Your task to perform on an android device: change timer sound Image 0: 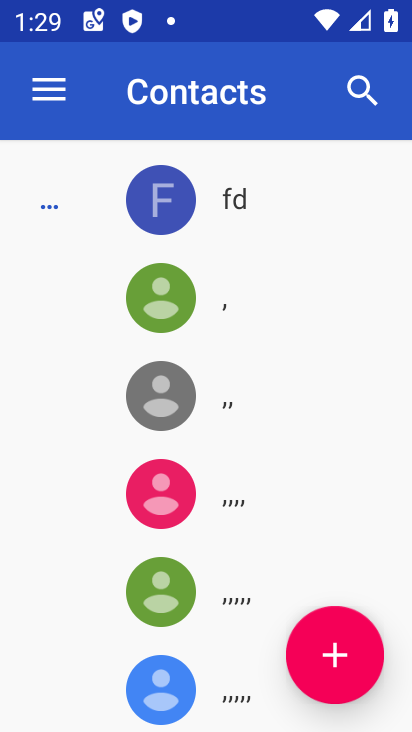
Step 0: press home button
Your task to perform on an android device: change timer sound Image 1: 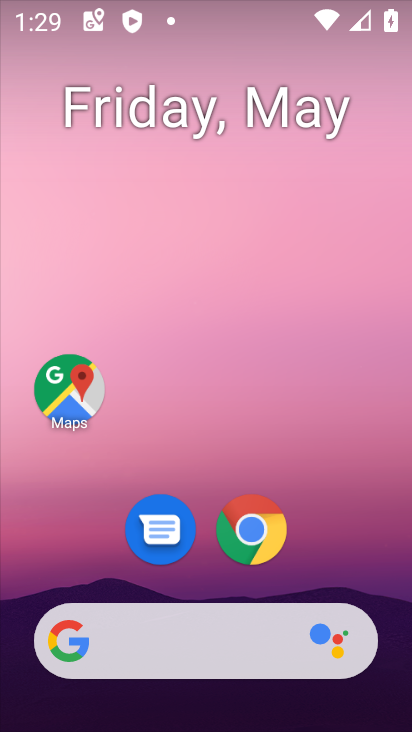
Step 1: drag from (383, 557) to (242, 35)
Your task to perform on an android device: change timer sound Image 2: 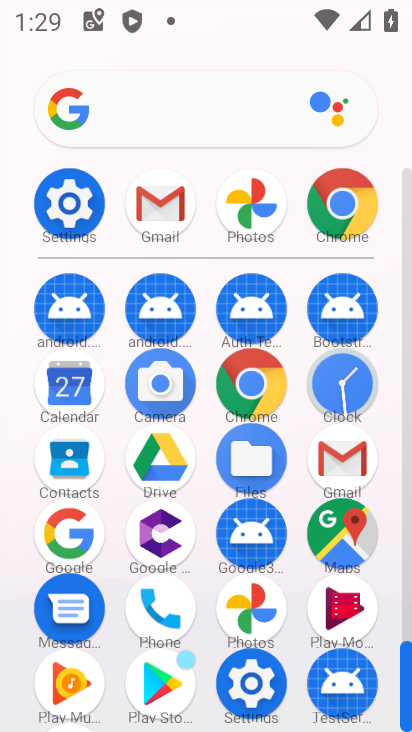
Step 2: click (67, 193)
Your task to perform on an android device: change timer sound Image 3: 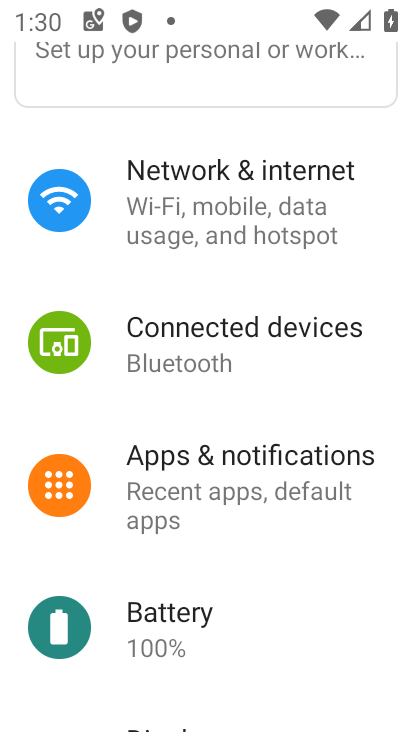
Step 3: press home button
Your task to perform on an android device: change timer sound Image 4: 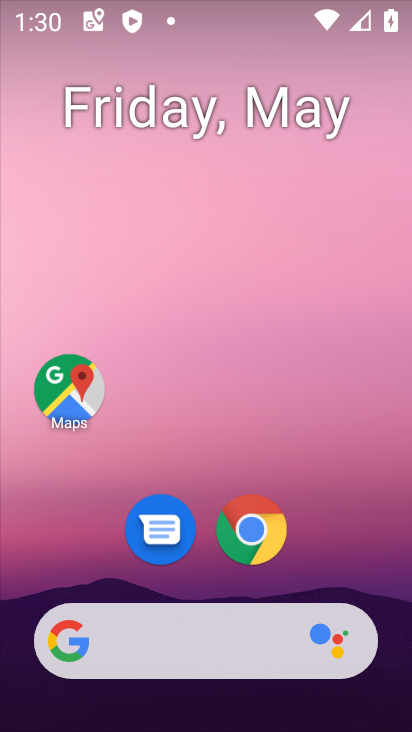
Step 4: drag from (347, 548) to (241, 154)
Your task to perform on an android device: change timer sound Image 5: 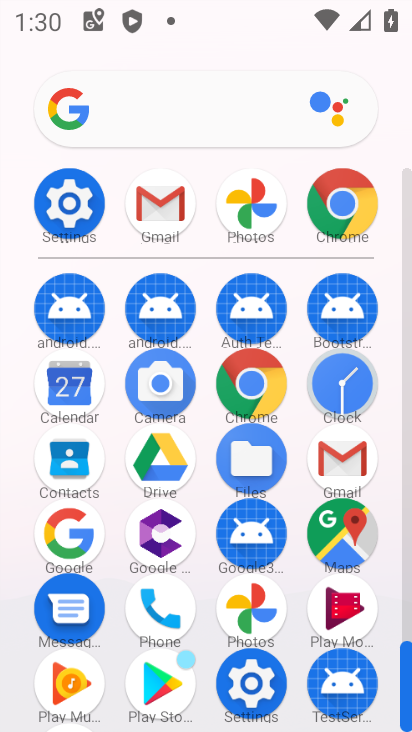
Step 5: click (338, 371)
Your task to perform on an android device: change timer sound Image 6: 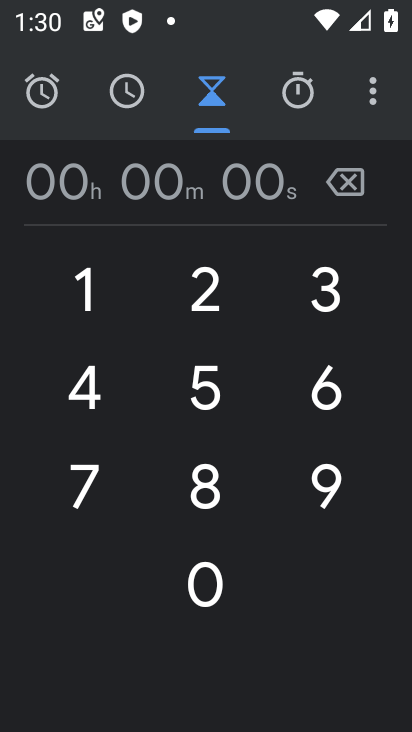
Step 6: click (374, 93)
Your task to perform on an android device: change timer sound Image 7: 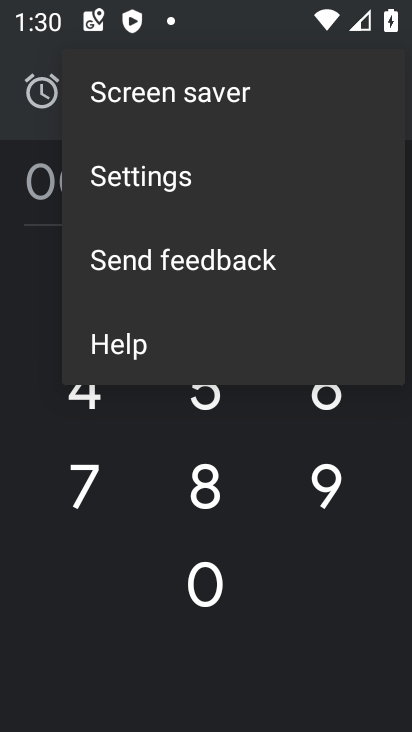
Step 7: click (147, 162)
Your task to perform on an android device: change timer sound Image 8: 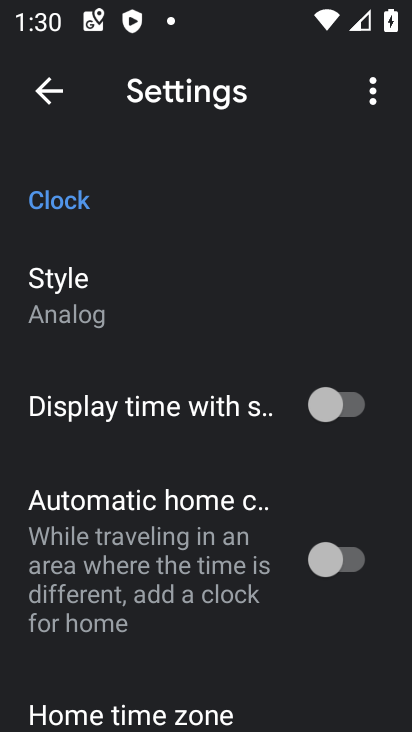
Step 8: drag from (73, 524) to (92, 86)
Your task to perform on an android device: change timer sound Image 9: 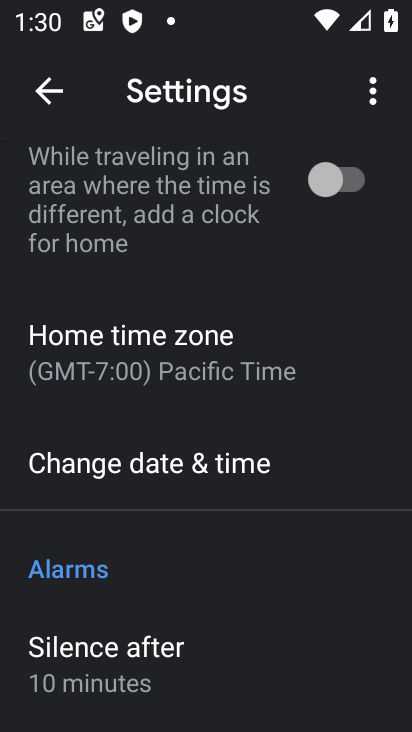
Step 9: drag from (141, 611) to (143, 227)
Your task to perform on an android device: change timer sound Image 10: 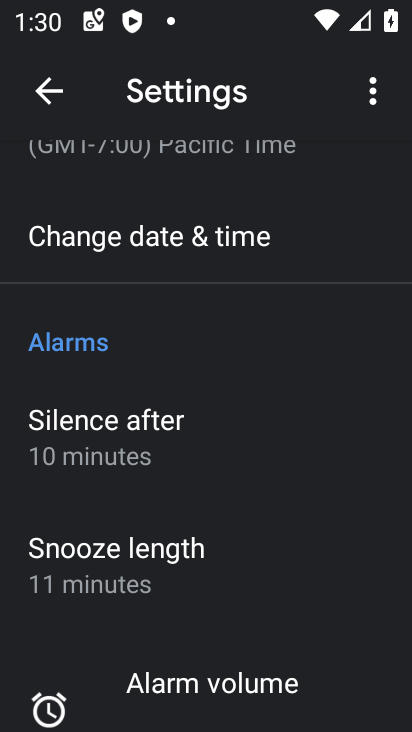
Step 10: drag from (184, 593) to (180, 554)
Your task to perform on an android device: change timer sound Image 11: 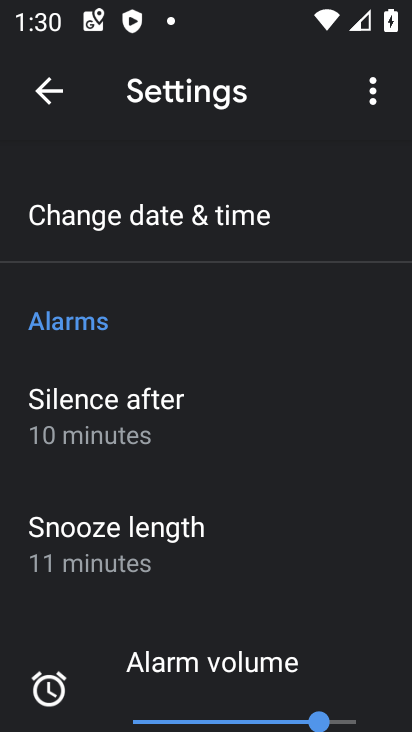
Step 11: click (154, 405)
Your task to perform on an android device: change timer sound Image 12: 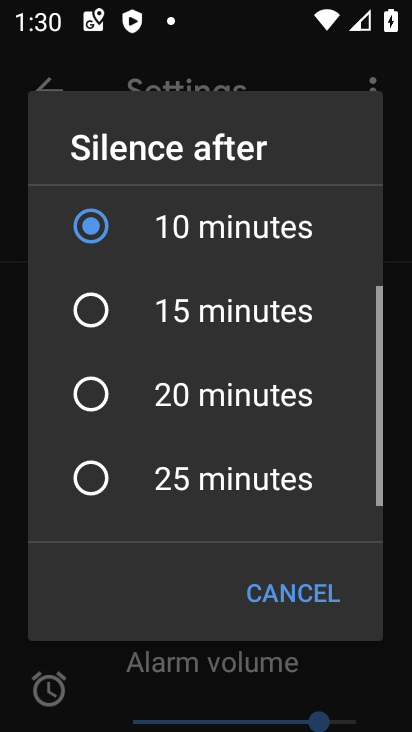
Step 12: click (207, 384)
Your task to perform on an android device: change timer sound Image 13: 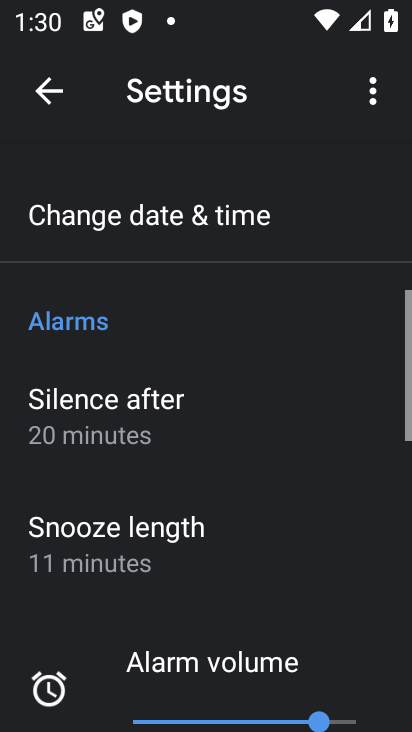
Step 13: task complete